Your task to perform on an android device: open app "Skype" (install if not already installed) Image 0: 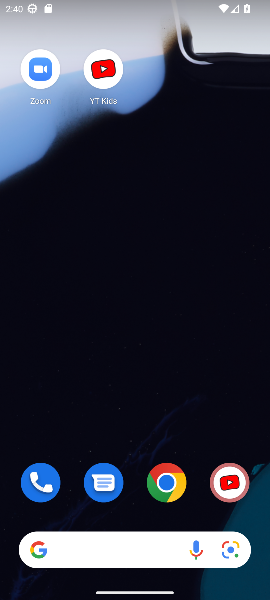
Step 0: drag from (132, 380) to (132, 99)
Your task to perform on an android device: open app "Skype" (install if not already installed) Image 1: 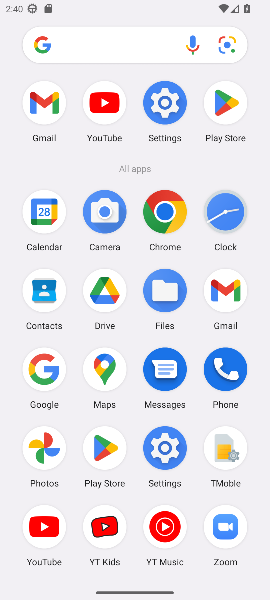
Step 1: click (224, 110)
Your task to perform on an android device: open app "Skype" (install if not already installed) Image 2: 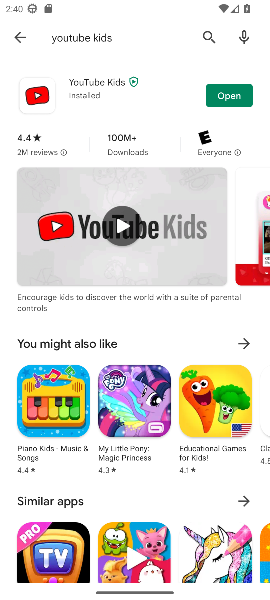
Step 2: click (19, 34)
Your task to perform on an android device: open app "Skype" (install if not already installed) Image 3: 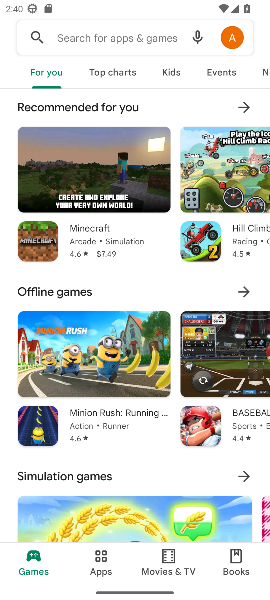
Step 3: click (122, 44)
Your task to perform on an android device: open app "Skype" (install if not already installed) Image 4: 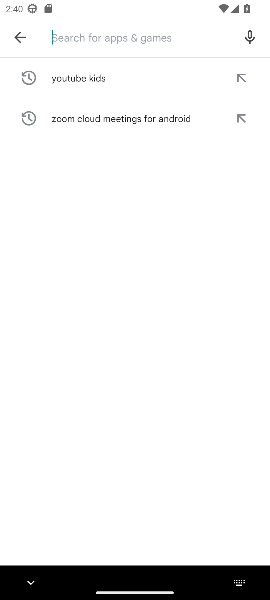
Step 4: type "Skype"
Your task to perform on an android device: open app "Skype" (install if not already installed) Image 5: 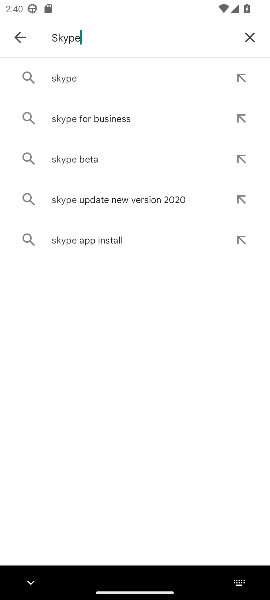
Step 5: click (57, 77)
Your task to perform on an android device: open app "Skype" (install if not already installed) Image 6: 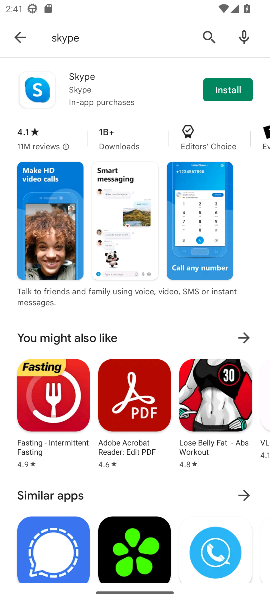
Step 6: click (227, 96)
Your task to perform on an android device: open app "Skype" (install if not already installed) Image 7: 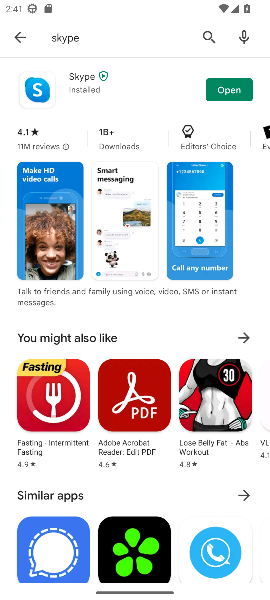
Step 7: click (227, 96)
Your task to perform on an android device: open app "Skype" (install if not already installed) Image 8: 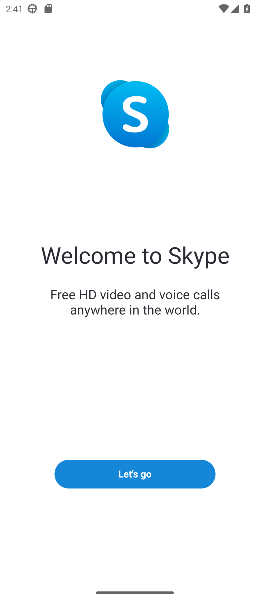
Step 8: task complete